Your task to perform on an android device: Toggle the flashlight Image 0: 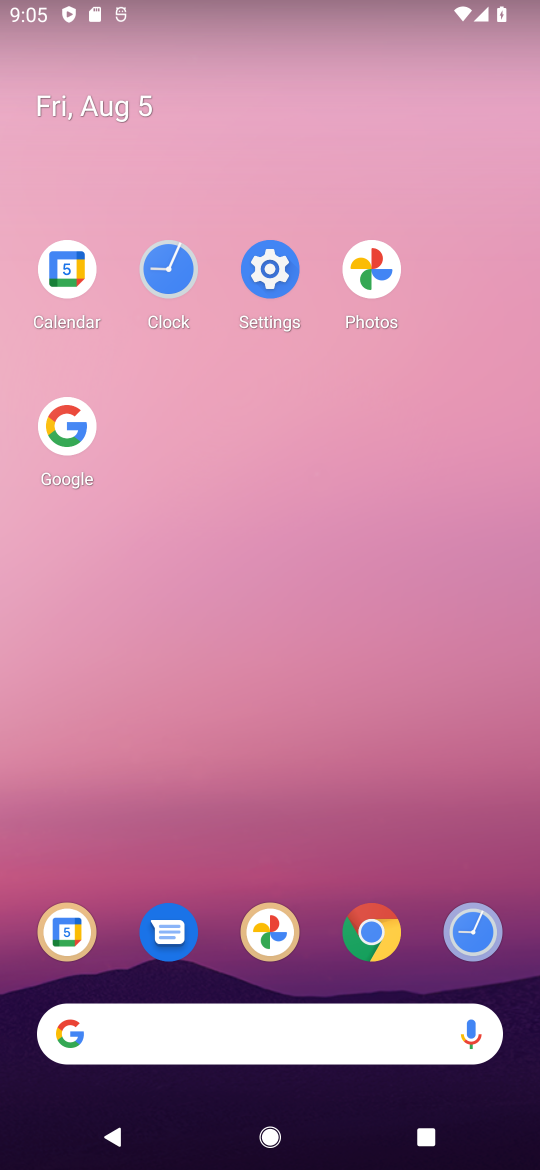
Step 0: drag from (290, 123) to (167, 753)
Your task to perform on an android device: Toggle the flashlight Image 1: 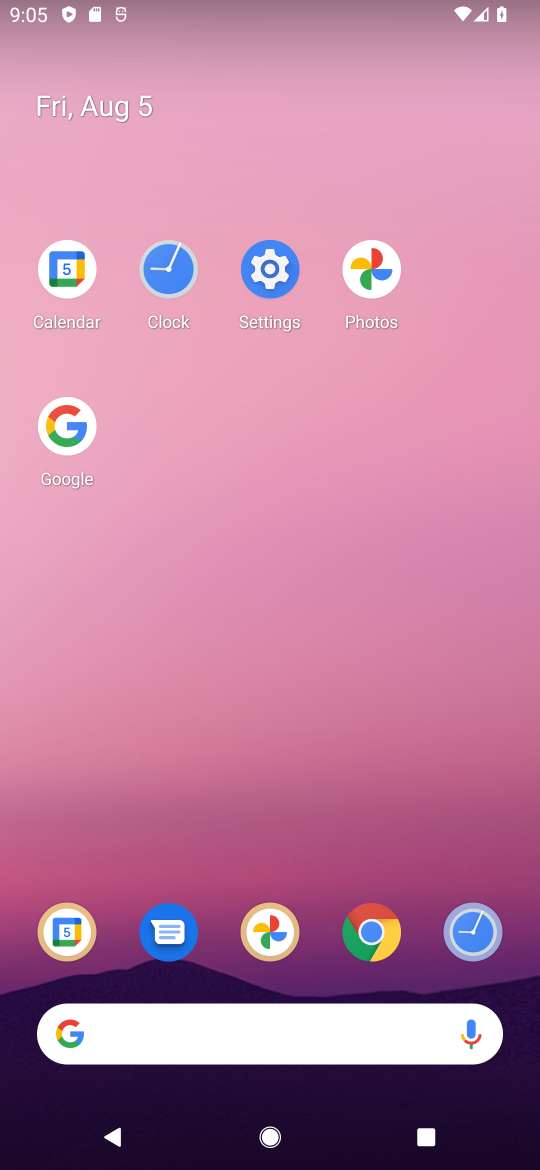
Step 1: task complete